Your task to perform on an android device: toggle pop-ups in chrome Image 0: 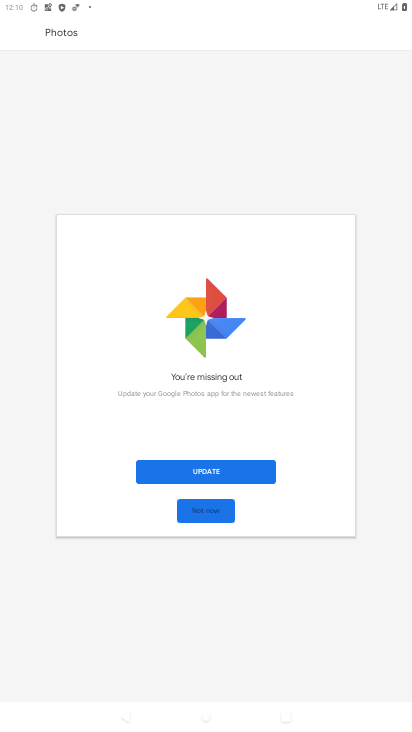
Step 0: press home button
Your task to perform on an android device: toggle pop-ups in chrome Image 1: 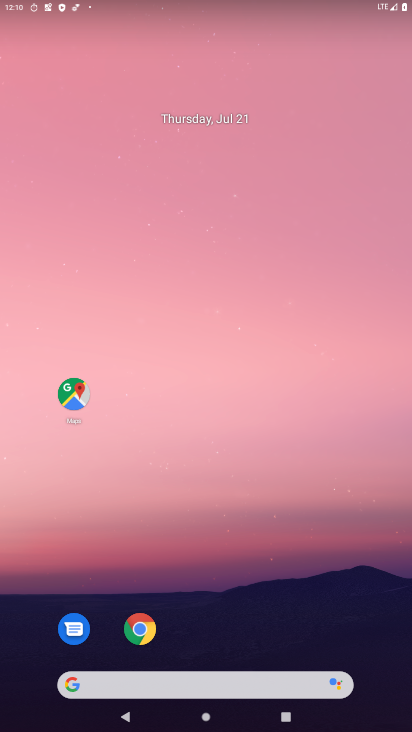
Step 1: drag from (273, 684) to (231, 10)
Your task to perform on an android device: toggle pop-ups in chrome Image 2: 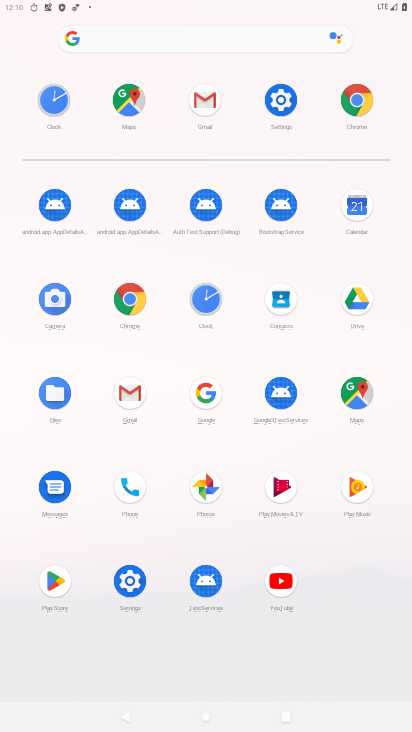
Step 2: click (143, 297)
Your task to perform on an android device: toggle pop-ups in chrome Image 3: 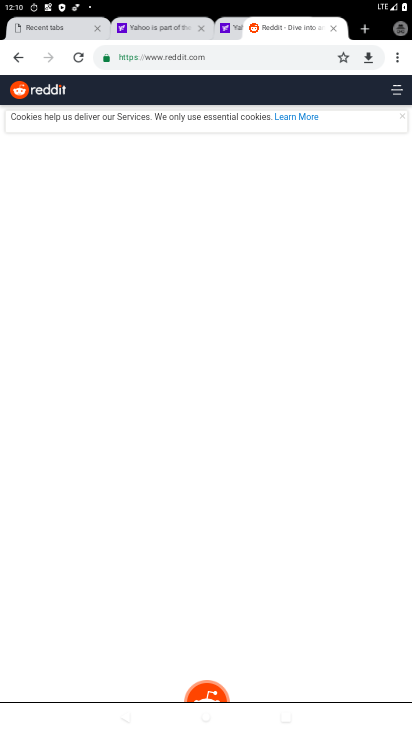
Step 3: drag from (393, 53) to (288, 380)
Your task to perform on an android device: toggle pop-ups in chrome Image 4: 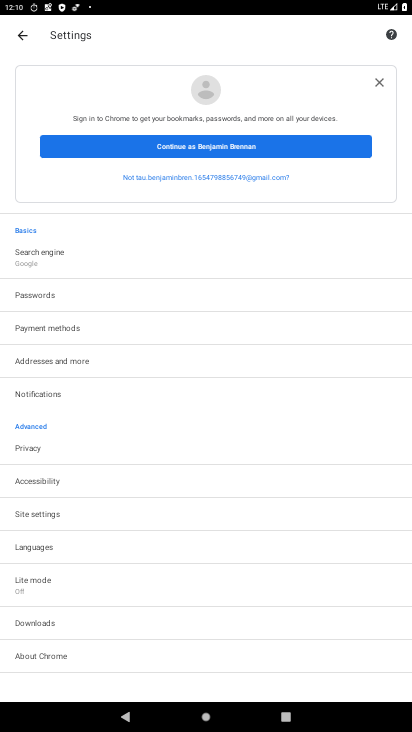
Step 4: click (59, 509)
Your task to perform on an android device: toggle pop-ups in chrome Image 5: 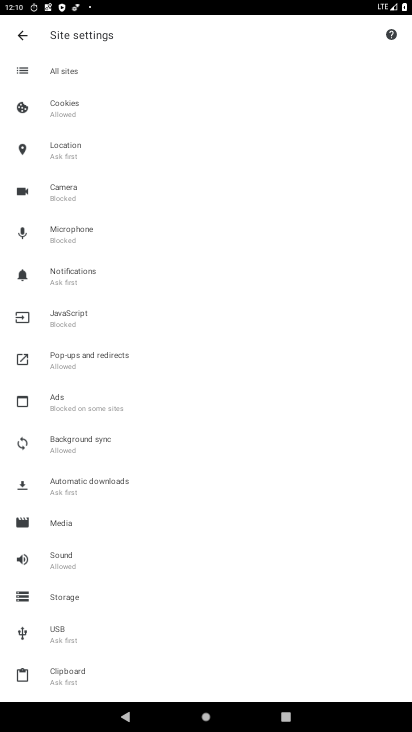
Step 5: click (67, 370)
Your task to perform on an android device: toggle pop-ups in chrome Image 6: 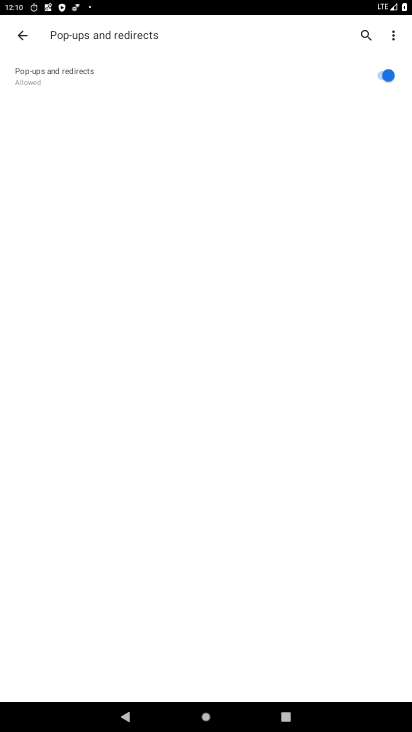
Step 6: click (379, 78)
Your task to perform on an android device: toggle pop-ups in chrome Image 7: 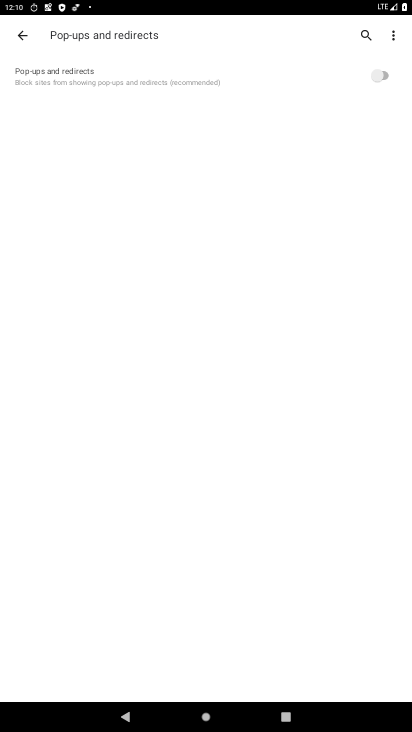
Step 7: task complete